Your task to perform on an android device: Open the Play Movies app and select the watchlist tab. Image 0: 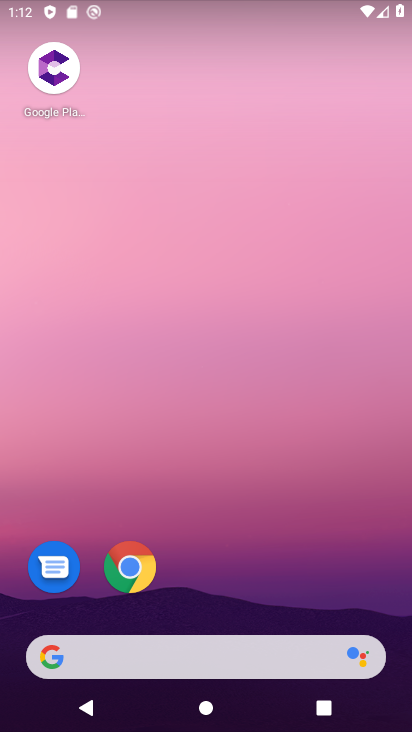
Step 0: drag from (323, 603) to (238, 81)
Your task to perform on an android device: Open the Play Movies app and select the watchlist tab. Image 1: 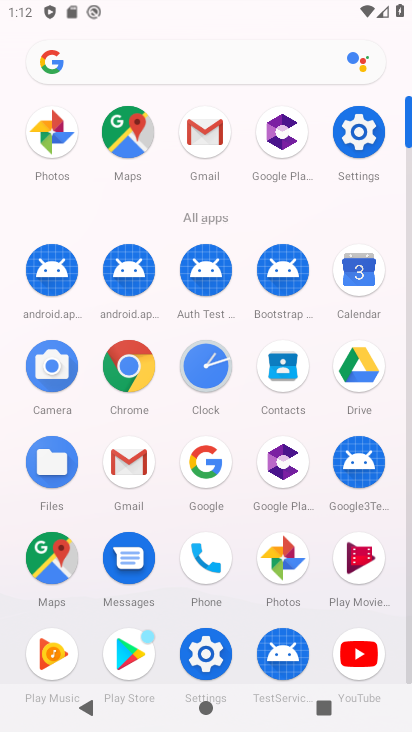
Step 1: click (371, 552)
Your task to perform on an android device: Open the Play Movies app and select the watchlist tab. Image 2: 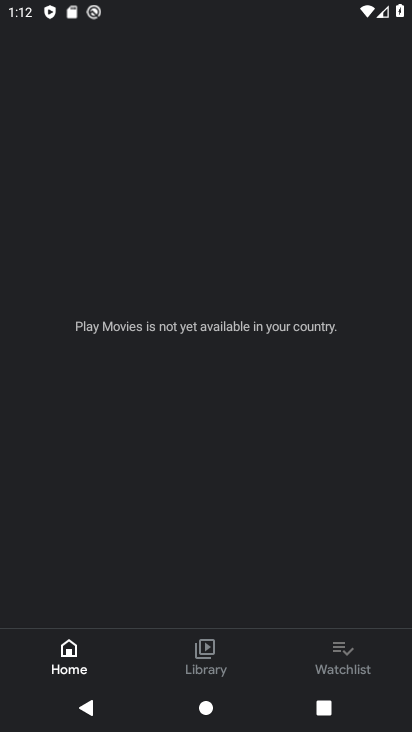
Step 2: click (360, 645)
Your task to perform on an android device: Open the Play Movies app and select the watchlist tab. Image 3: 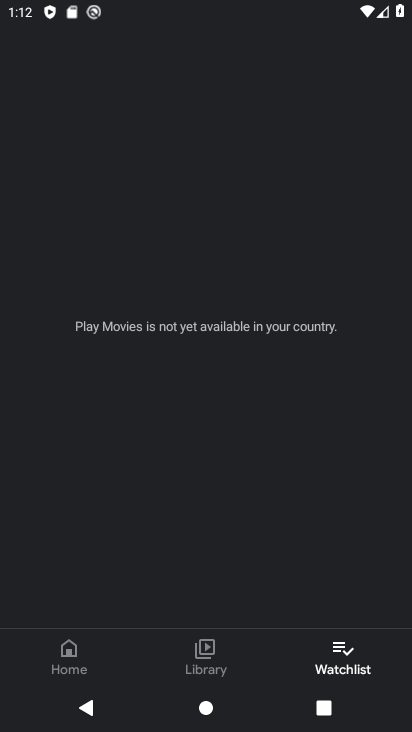
Step 3: task complete